Your task to perform on an android device: change notifications settings Image 0: 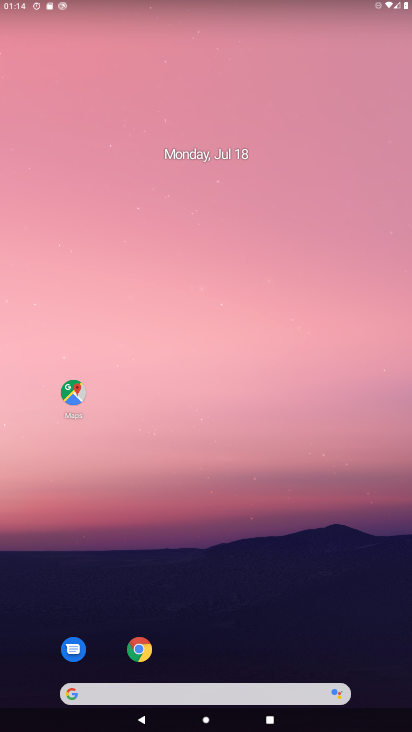
Step 0: drag from (119, 232) to (176, 90)
Your task to perform on an android device: change notifications settings Image 1: 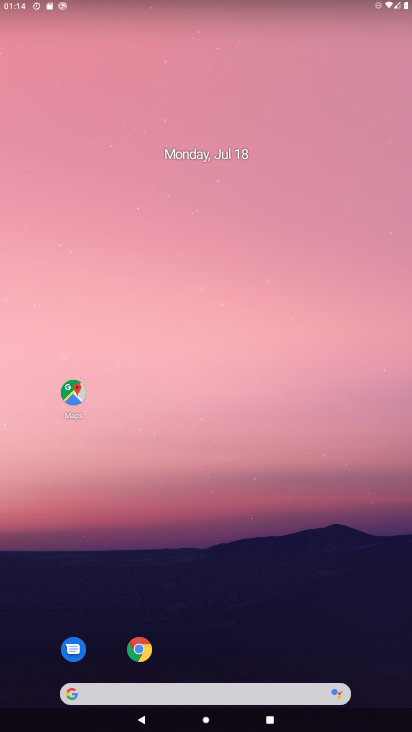
Step 1: drag from (28, 682) to (333, 94)
Your task to perform on an android device: change notifications settings Image 2: 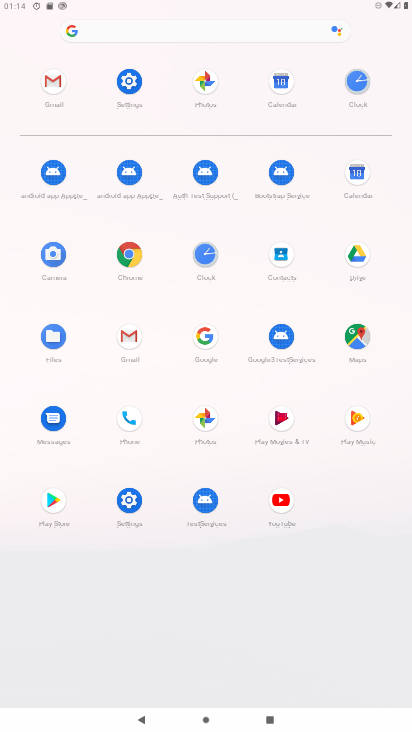
Step 2: click (122, 505)
Your task to perform on an android device: change notifications settings Image 3: 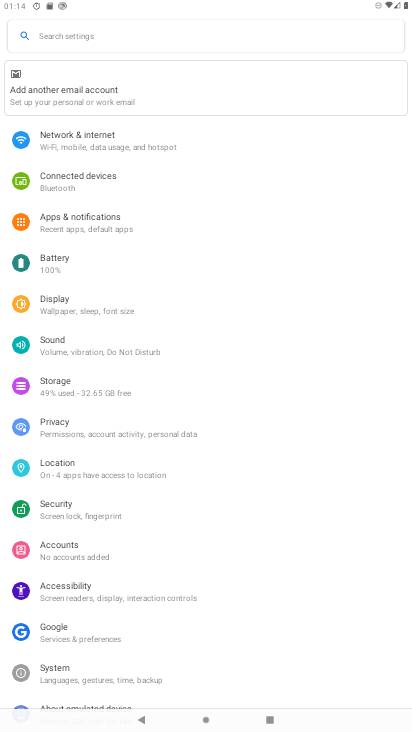
Step 3: click (112, 142)
Your task to perform on an android device: change notifications settings Image 4: 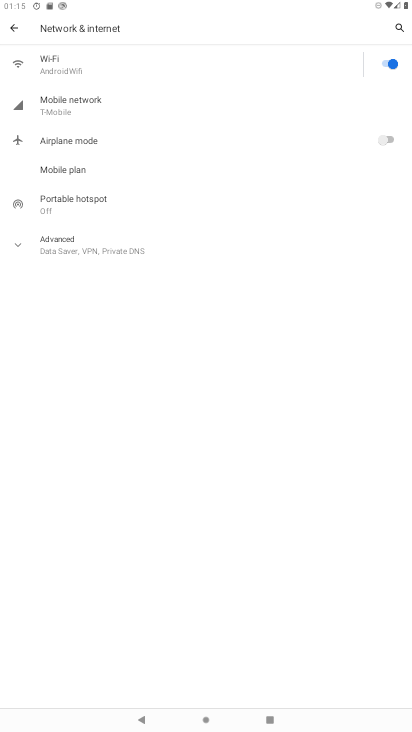
Step 4: click (10, 23)
Your task to perform on an android device: change notifications settings Image 5: 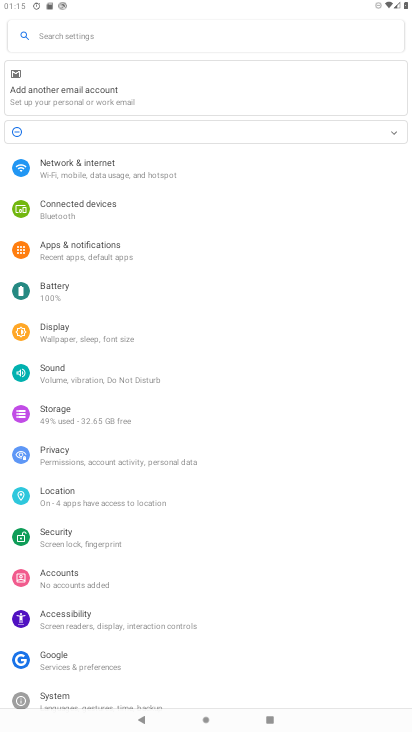
Step 5: click (84, 247)
Your task to perform on an android device: change notifications settings Image 6: 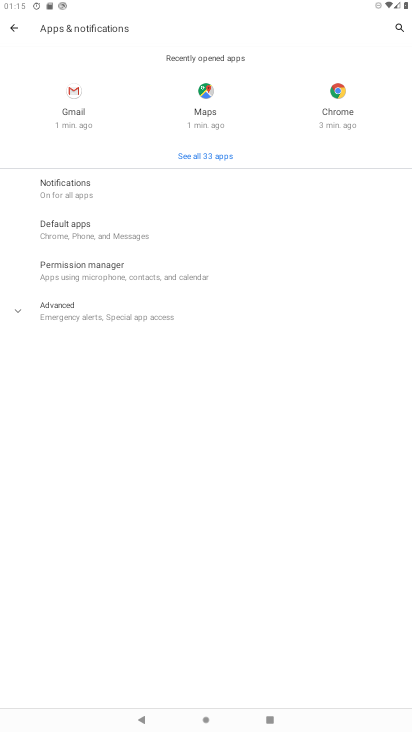
Step 6: click (82, 193)
Your task to perform on an android device: change notifications settings Image 7: 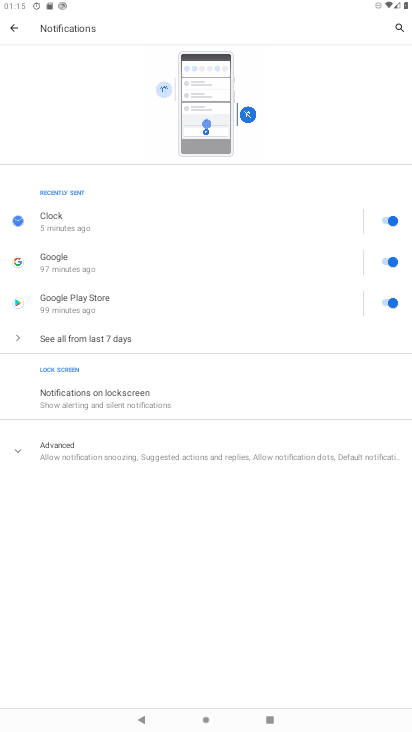
Step 7: click (15, 28)
Your task to perform on an android device: change notifications settings Image 8: 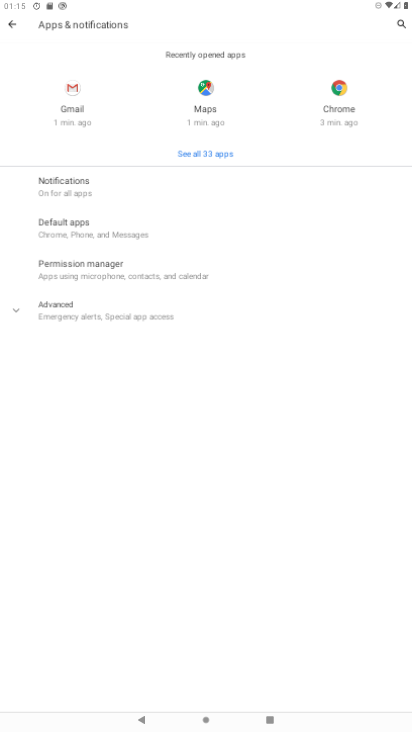
Step 8: click (17, 36)
Your task to perform on an android device: change notifications settings Image 9: 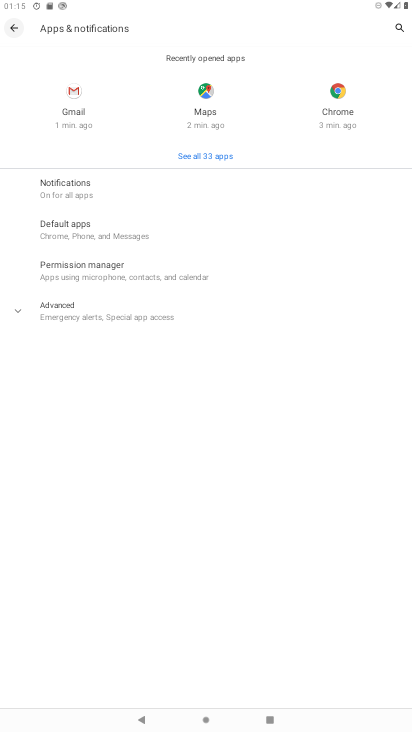
Step 9: click (15, 37)
Your task to perform on an android device: change notifications settings Image 10: 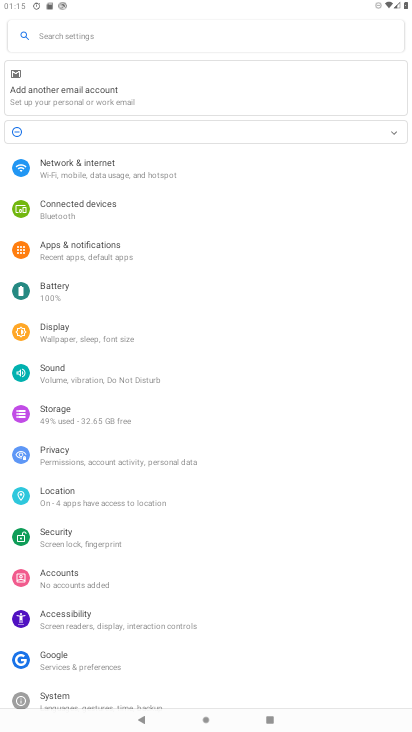
Step 10: click (68, 249)
Your task to perform on an android device: change notifications settings Image 11: 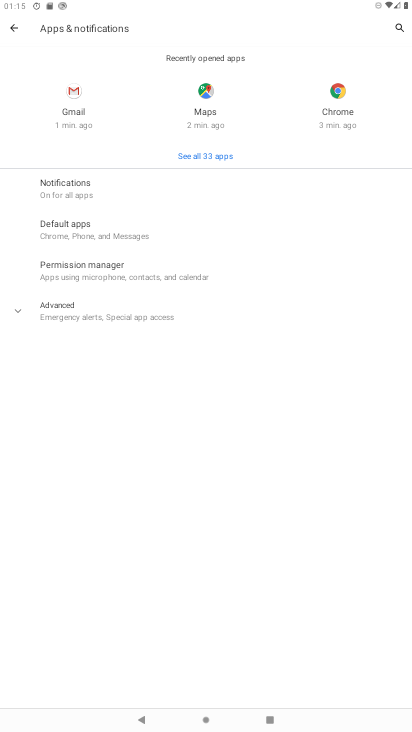
Step 11: task complete